Your task to perform on an android device: Go to battery settings Image 0: 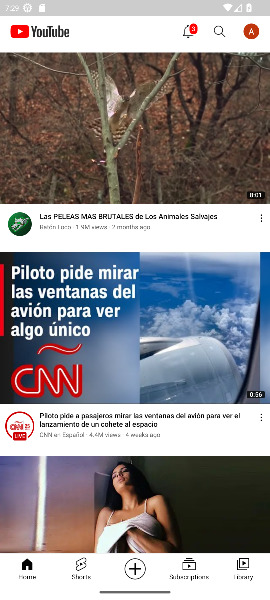
Step 0: press home button
Your task to perform on an android device: Go to battery settings Image 1: 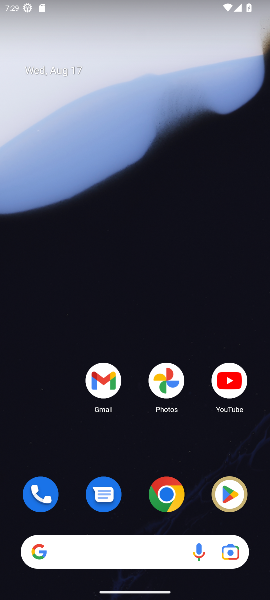
Step 1: drag from (101, 530) to (188, 63)
Your task to perform on an android device: Go to battery settings Image 2: 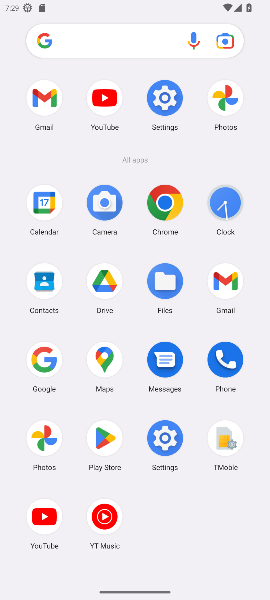
Step 2: click (171, 98)
Your task to perform on an android device: Go to battery settings Image 3: 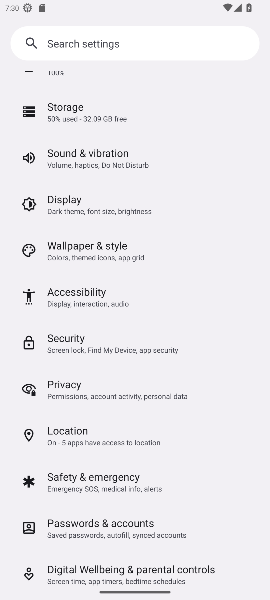
Step 3: drag from (80, 505) to (155, 176)
Your task to perform on an android device: Go to battery settings Image 4: 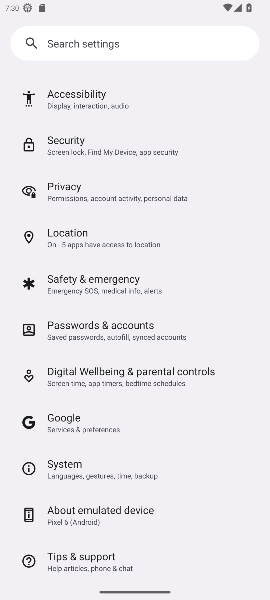
Step 4: drag from (137, 188) to (123, 556)
Your task to perform on an android device: Go to battery settings Image 5: 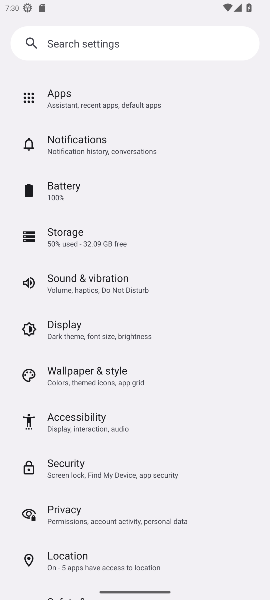
Step 5: click (82, 192)
Your task to perform on an android device: Go to battery settings Image 6: 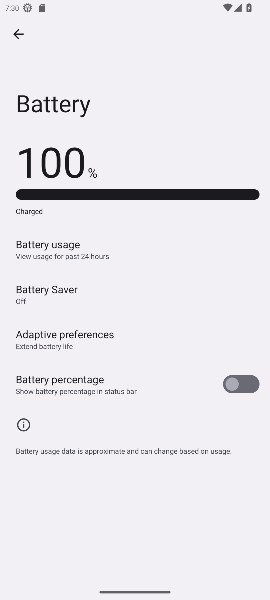
Step 6: task complete